Your task to perform on an android device: Add usb-b to the cart on bestbuy, then select checkout. Image 0: 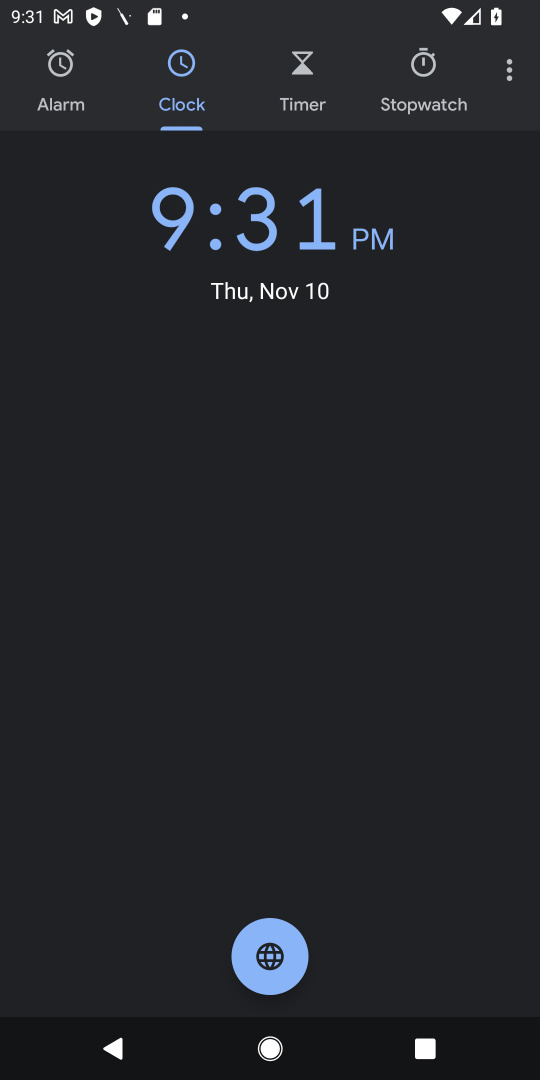
Step 0: press home button
Your task to perform on an android device: Add usb-b to the cart on bestbuy, then select checkout. Image 1: 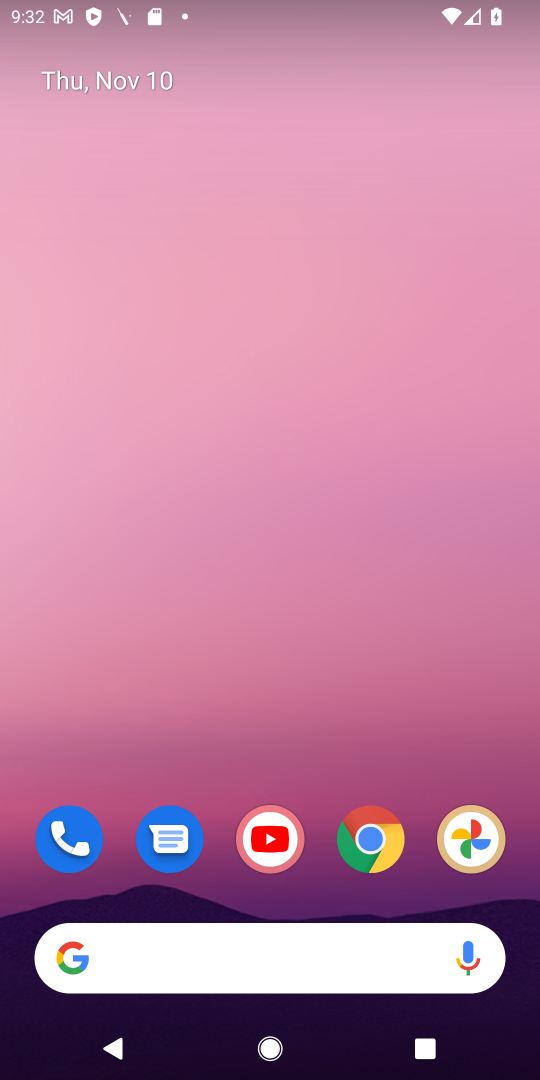
Step 1: click (367, 837)
Your task to perform on an android device: Add usb-b to the cart on bestbuy, then select checkout. Image 2: 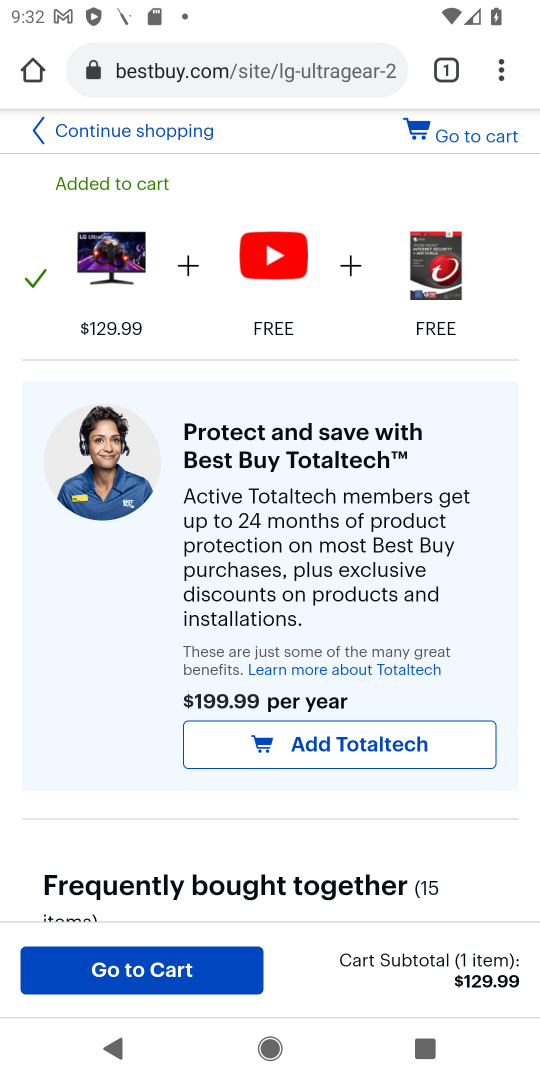
Step 2: drag from (357, 188) to (415, 858)
Your task to perform on an android device: Add usb-b to the cart on bestbuy, then select checkout. Image 3: 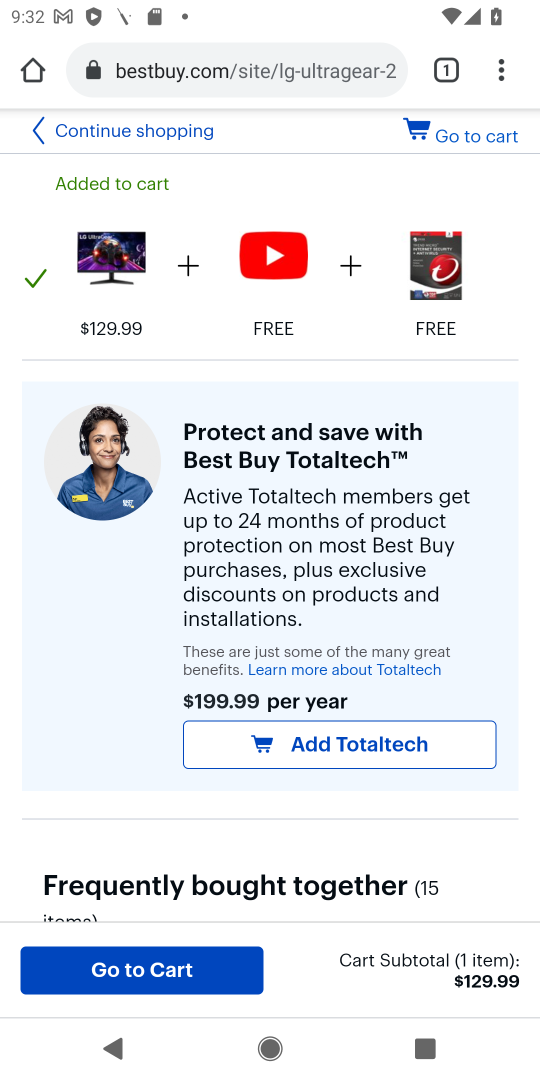
Step 3: drag from (443, 187) to (533, 877)
Your task to perform on an android device: Add usb-b to the cart on bestbuy, then select checkout. Image 4: 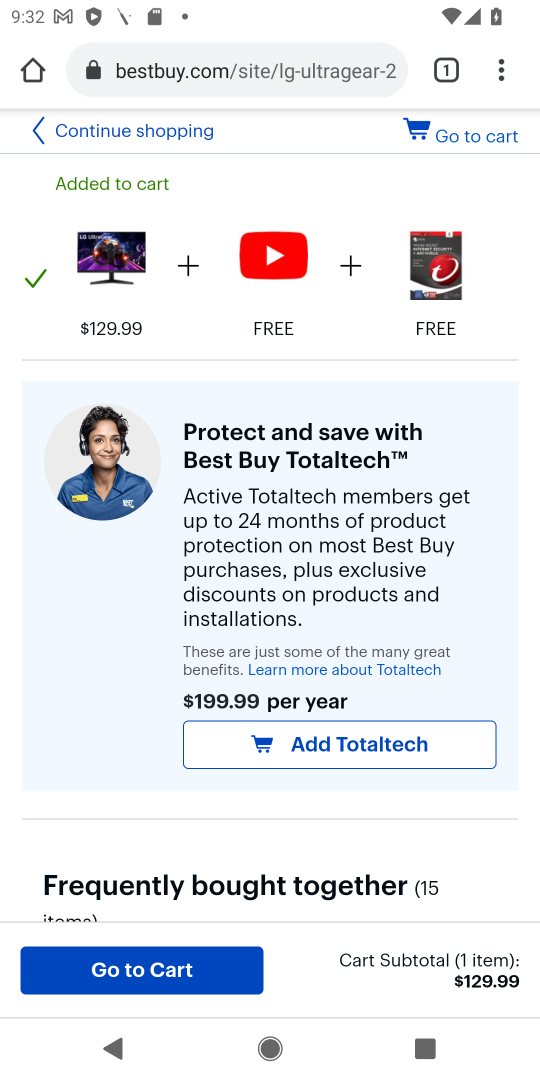
Step 4: press back button
Your task to perform on an android device: Add usb-b to the cart on bestbuy, then select checkout. Image 5: 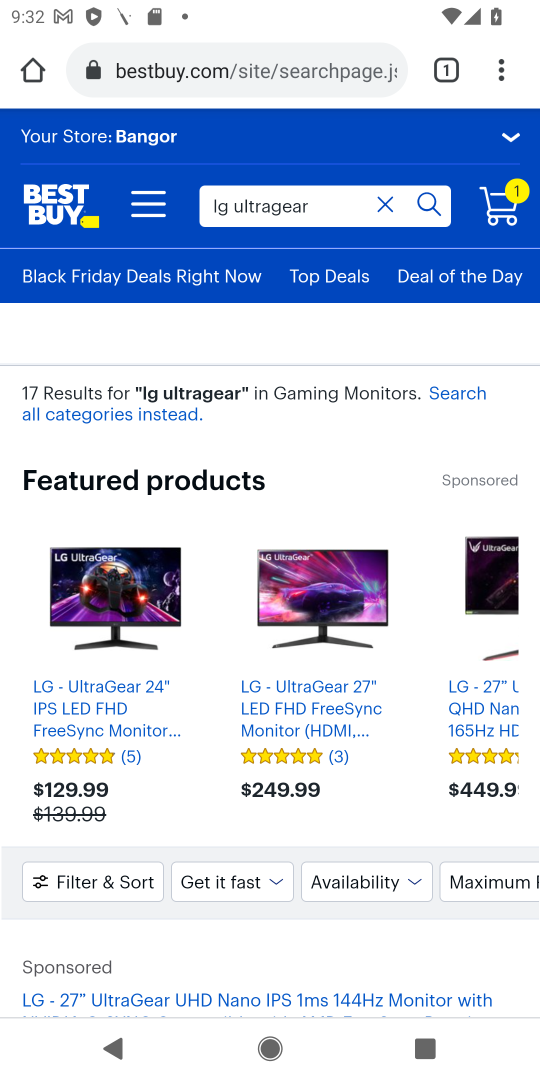
Step 5: click (386, 199)
Your task to perform on an android device: Add usb-b to the cart on bestbuy, then select checkout. Image 6: 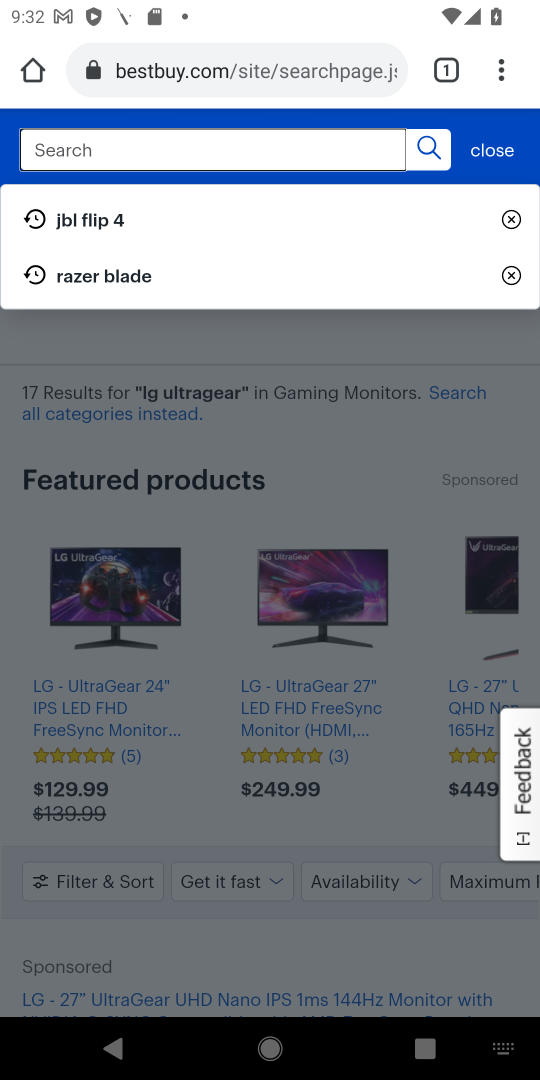
Step 6: type "usb-b"
Your task to perform on an android device: Add usb-b to the cart on bestbuy, then select checkout. Image 7: 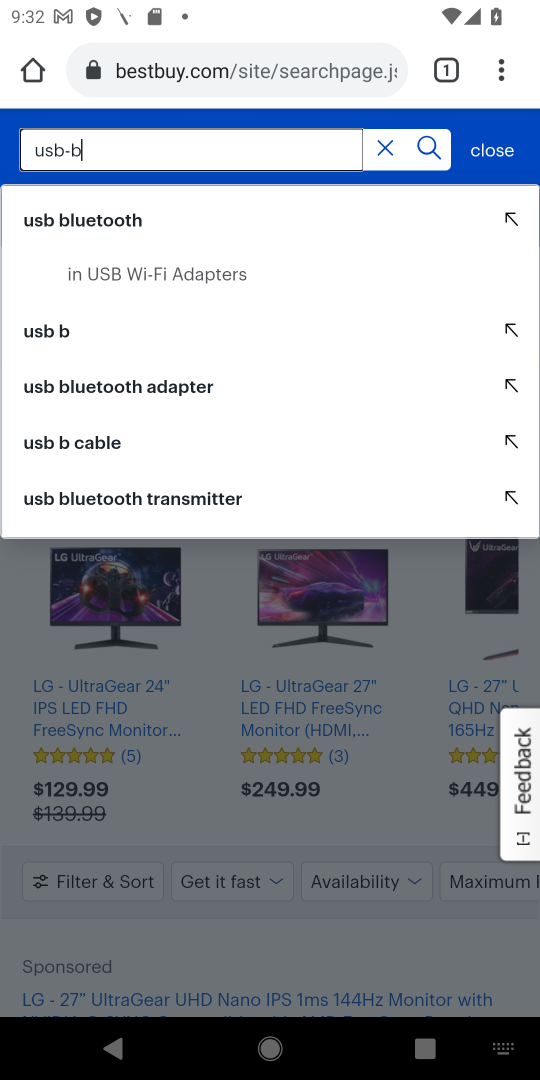
Step 7: click (56, 321)
Your task to perform on an android device: Add usb-b to the cart on bestbuy, then select checkout. Image 8: 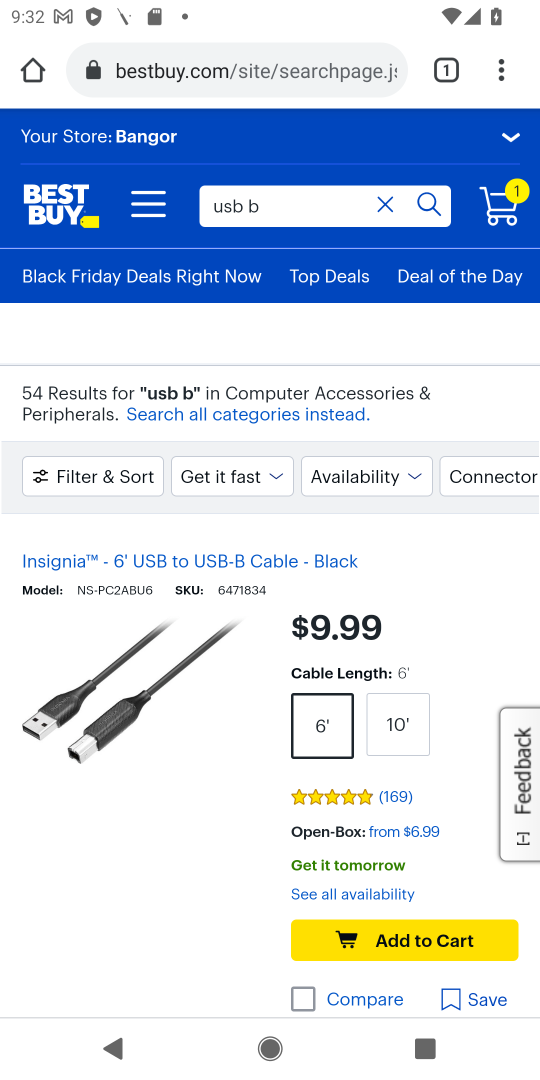
Step 8: click (218, 561)
Your task to perform on an android device: Add usb-b to the cart on bestbuy, then select checkout. Image 9: 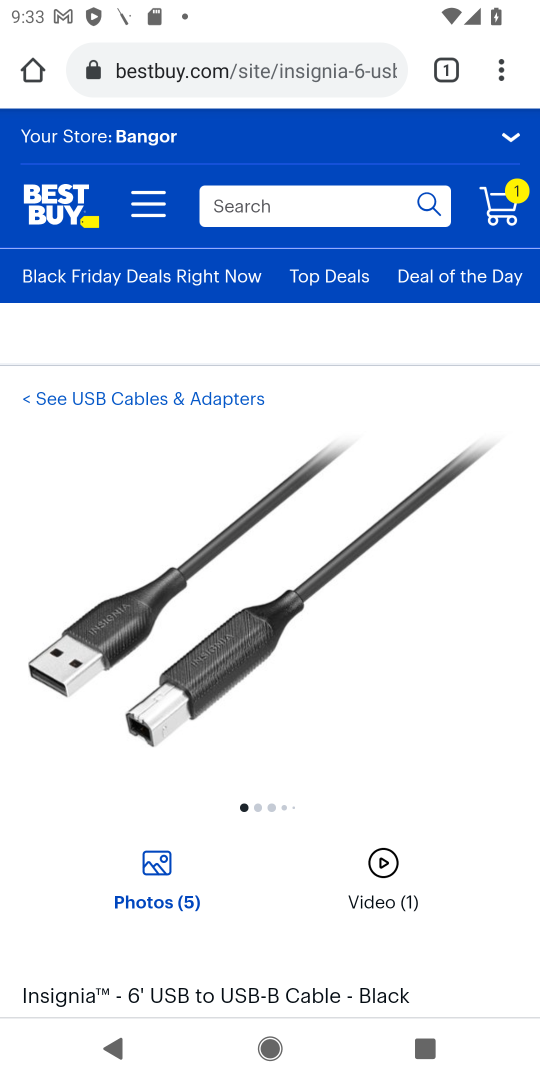
Step 9: drag from (426, 752) to (466, 344)
Your task to perform on an android device: Add usb-b to the cart on bestbuy, then select checkout. Image 10: 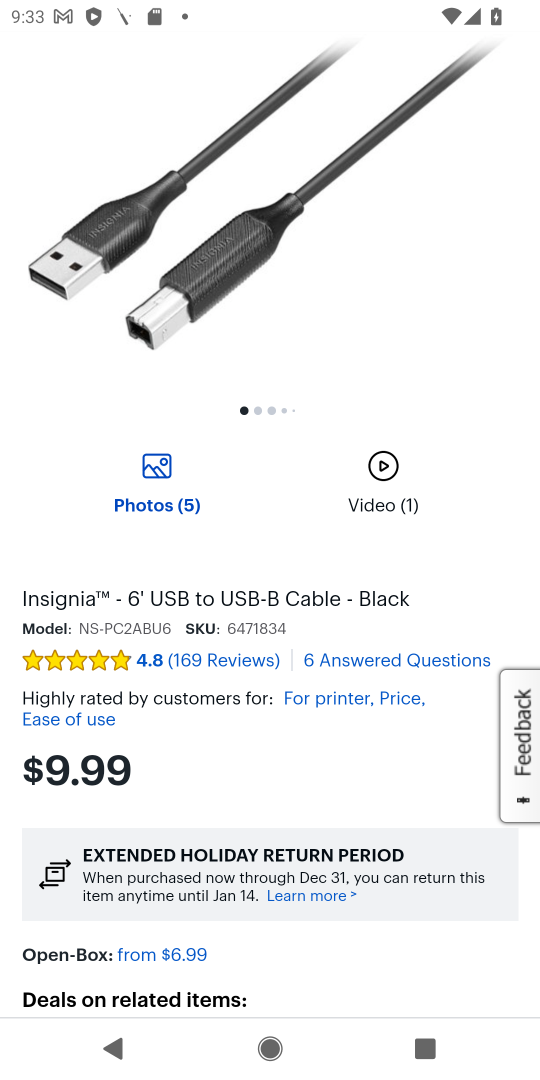
Step 10: drag from (426, 944) to (350, 453)
Your task to perform on an android device: Add usb-b to the cart on bestbuy, then select checkout. Image 11: 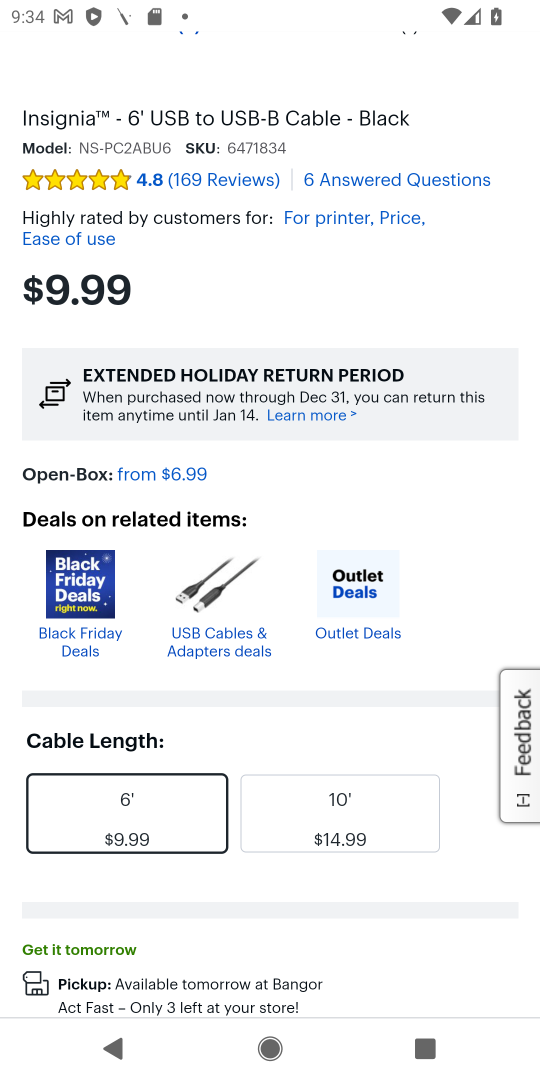
Step 11: drag from (395, 686) to (366, 233)
Your task to perform on an android device: Add usb-b to the cart on bestbuy, then select checkout. Image 12: 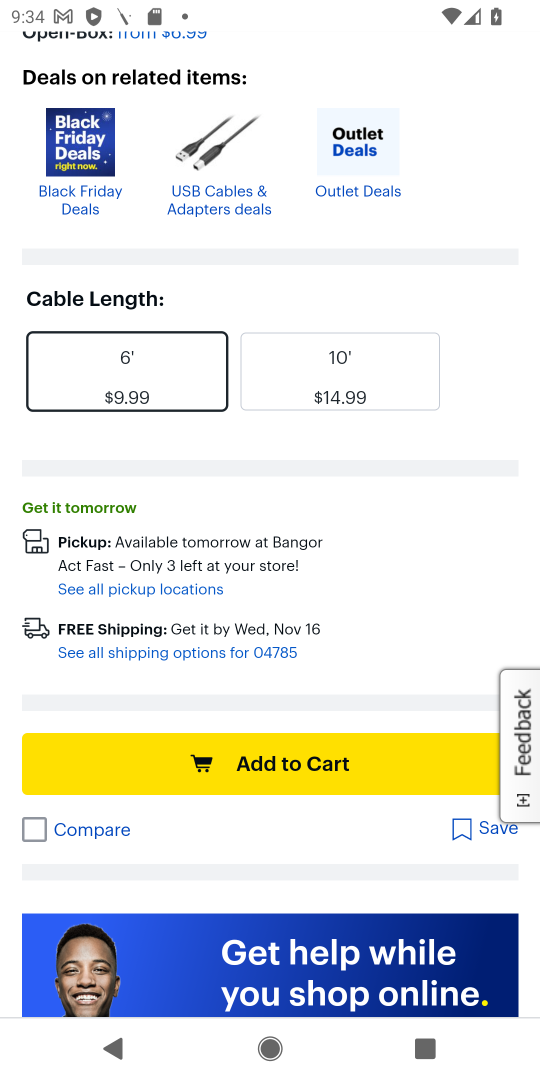
Step 12: click (308, 753)
Your task to perform on an android device: Add usb-b to the cart on bestbuy, then select checkout. Image 13: 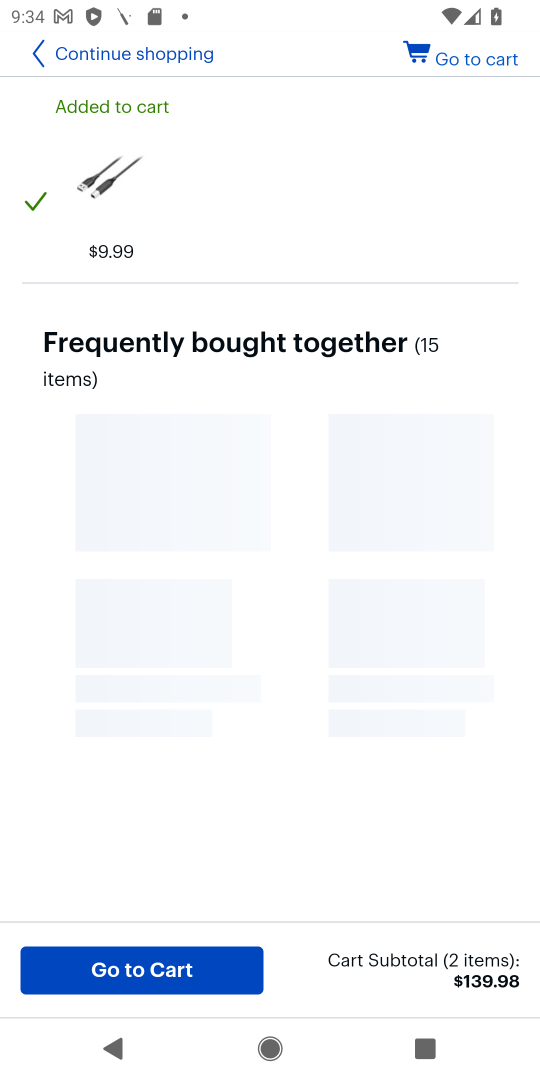
Step 13: click (176, 968)
Your task to perform on an android device: Add usb-b to the cart on bestbuy, then select checkout. Image 14: 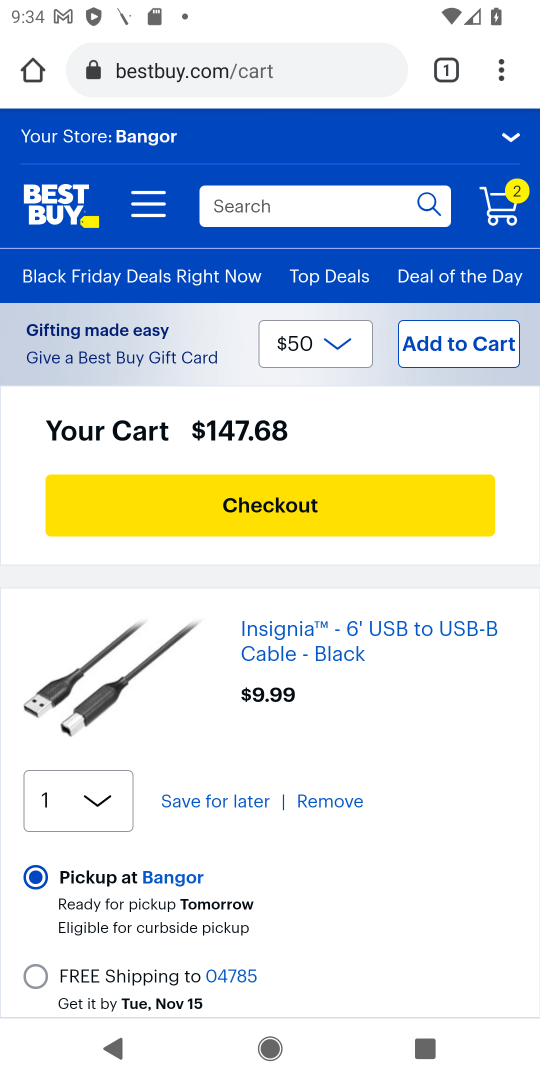
Step 14: click (282, 503)
Your task to perform on an android device: Add usb-b to the cart on bestbuy, then select checkout. Image 15: 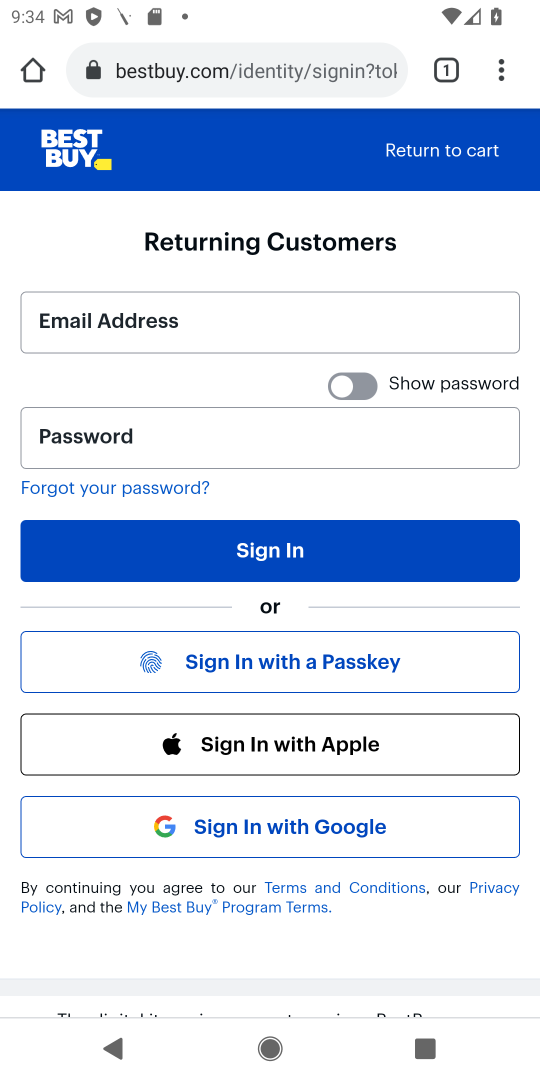
Step 15: task complete